Your task to perform on an android device: Clear the cart on ebay.com. Search for "razer deathadder" on ebay.com, select the first entry, and add it to the cart. Image 0: 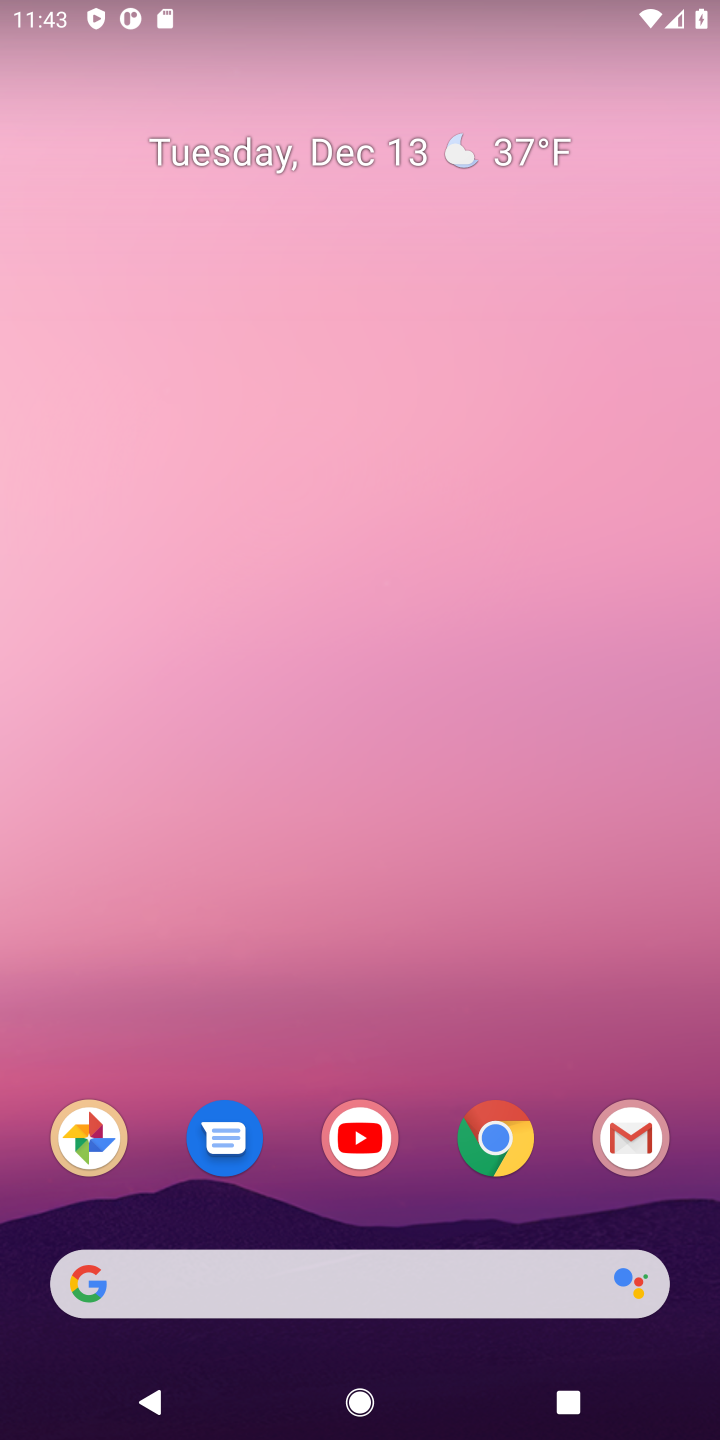
Step 0: click (507, 1137)
Your task to perform on an android device: Clear the cart on ebay.com. Search for "razer deathadder" on ebay.com, select the first entry, and add it to the cart. Image 1: 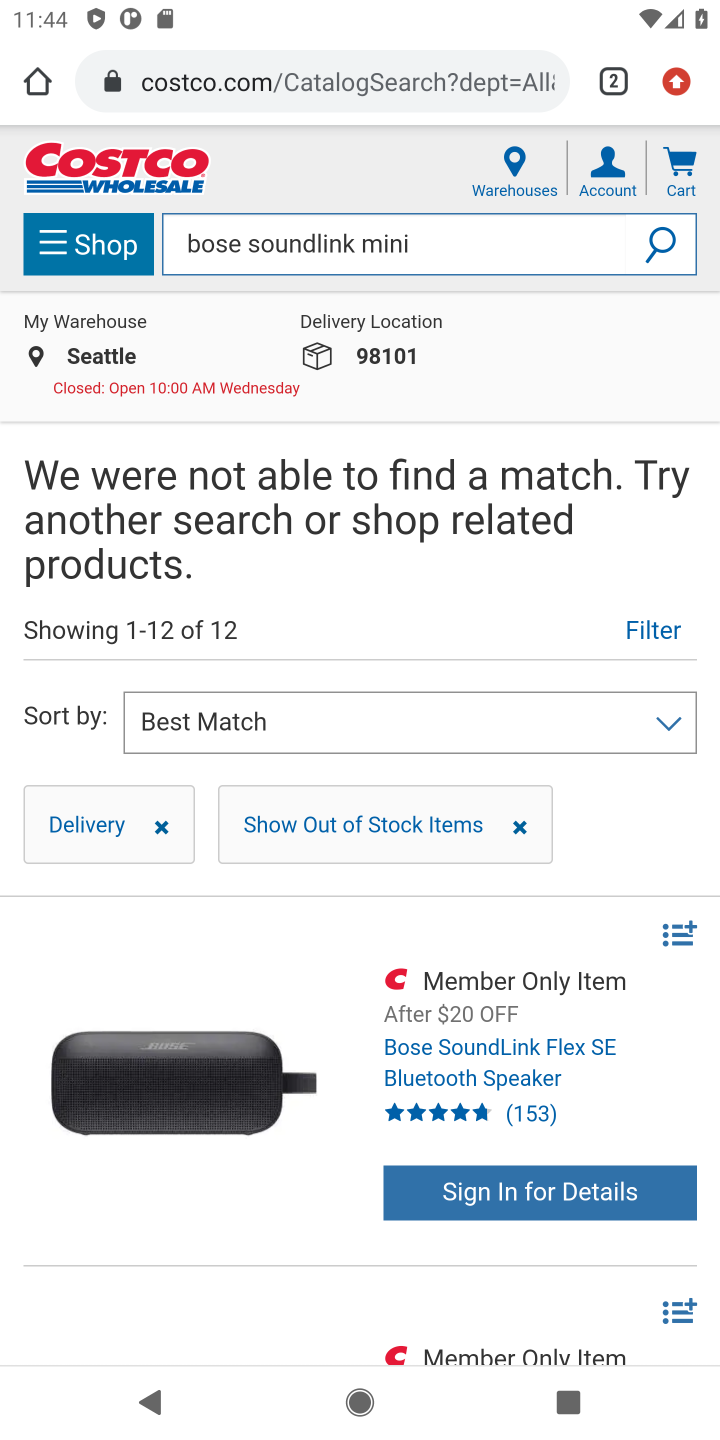
Step 1: click (625, 88)
Your task to perform on an android device: Clear the cart on ebay.com. Search for "razer deathadder" on ebay.com, select the first entry, and add it to the cart. Image 2: 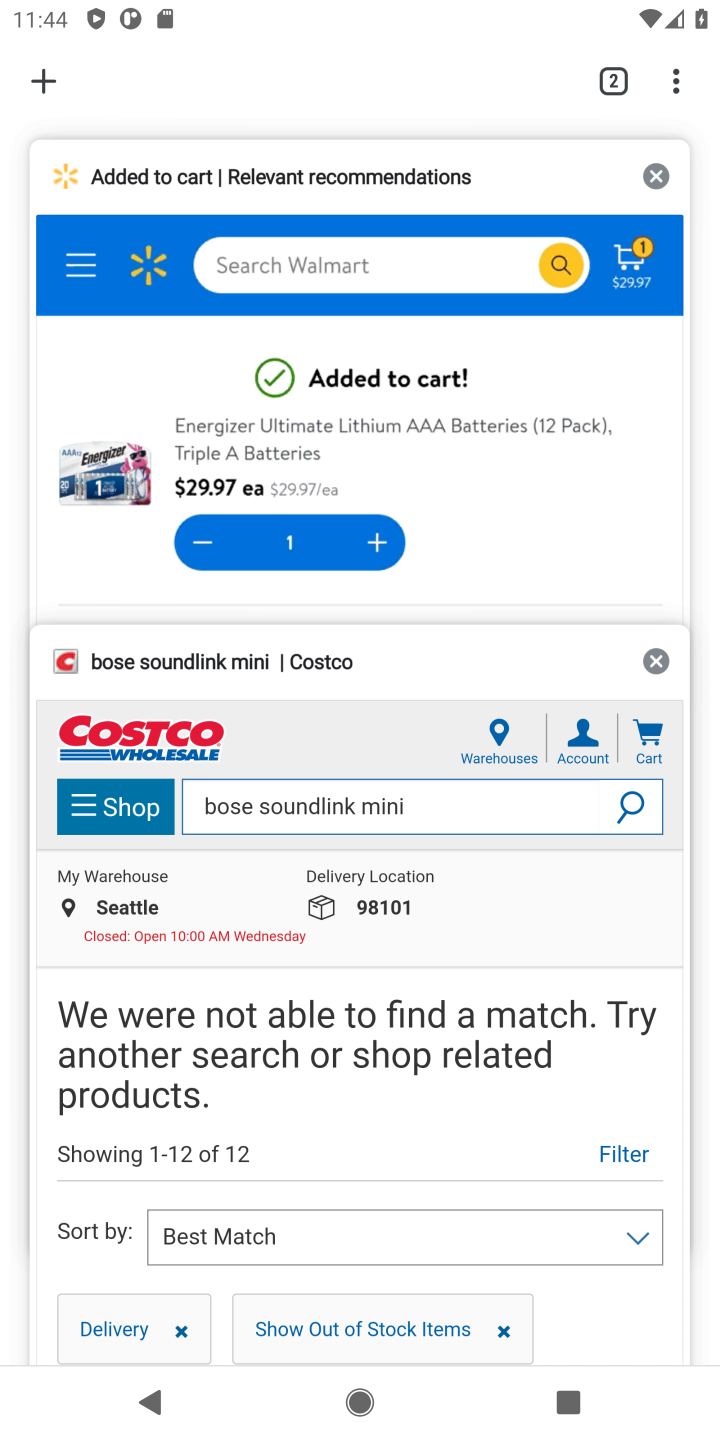
Step 2: click (43, 78)
Your task to perform on an android device: Clear the cart on ebay.com. Search for "razer deathadder" on ebay.com, select the first entry, and add it to the cart. Image 3: 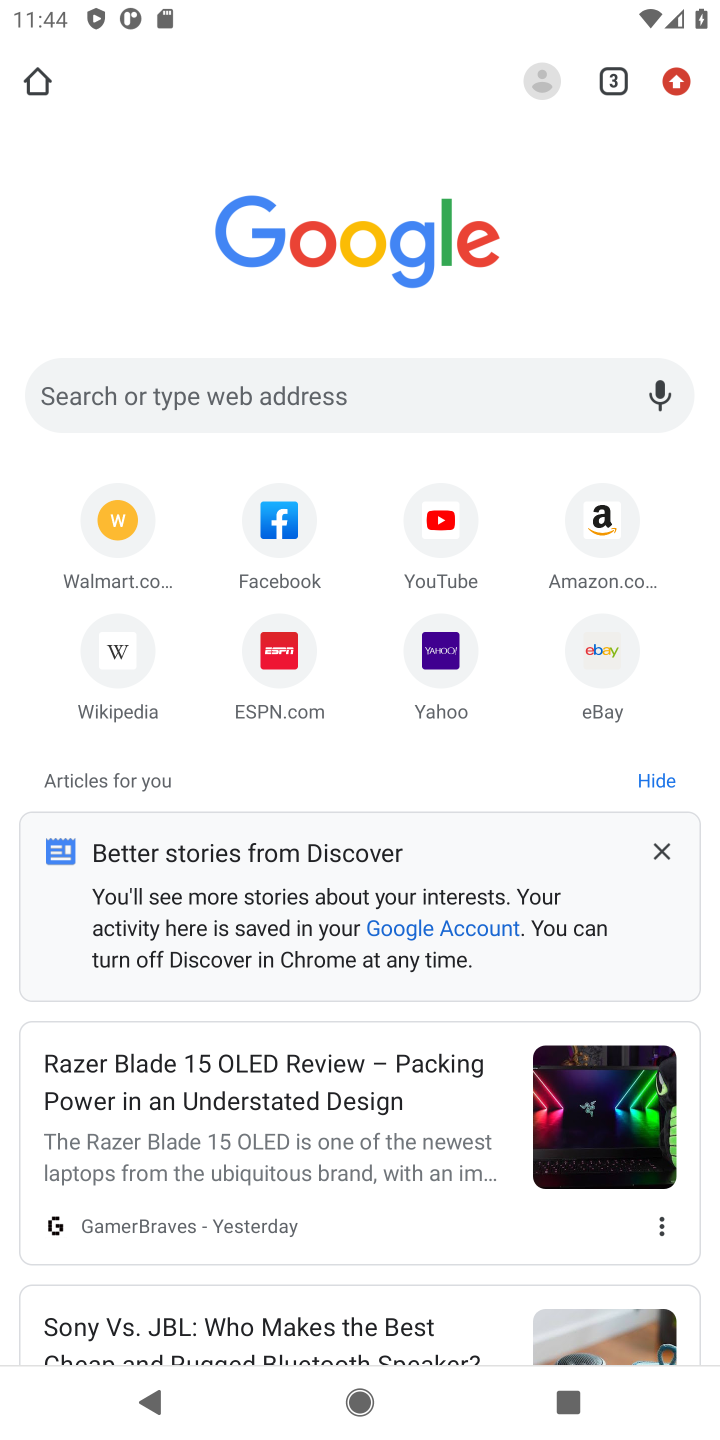
Step 3: click (601, 651)
Your task to perform on an android device: Clear the cart on ebay.com. Search for "razer deathadder" on ebay.com, select the first entry, and add it to the cart. Image 4: 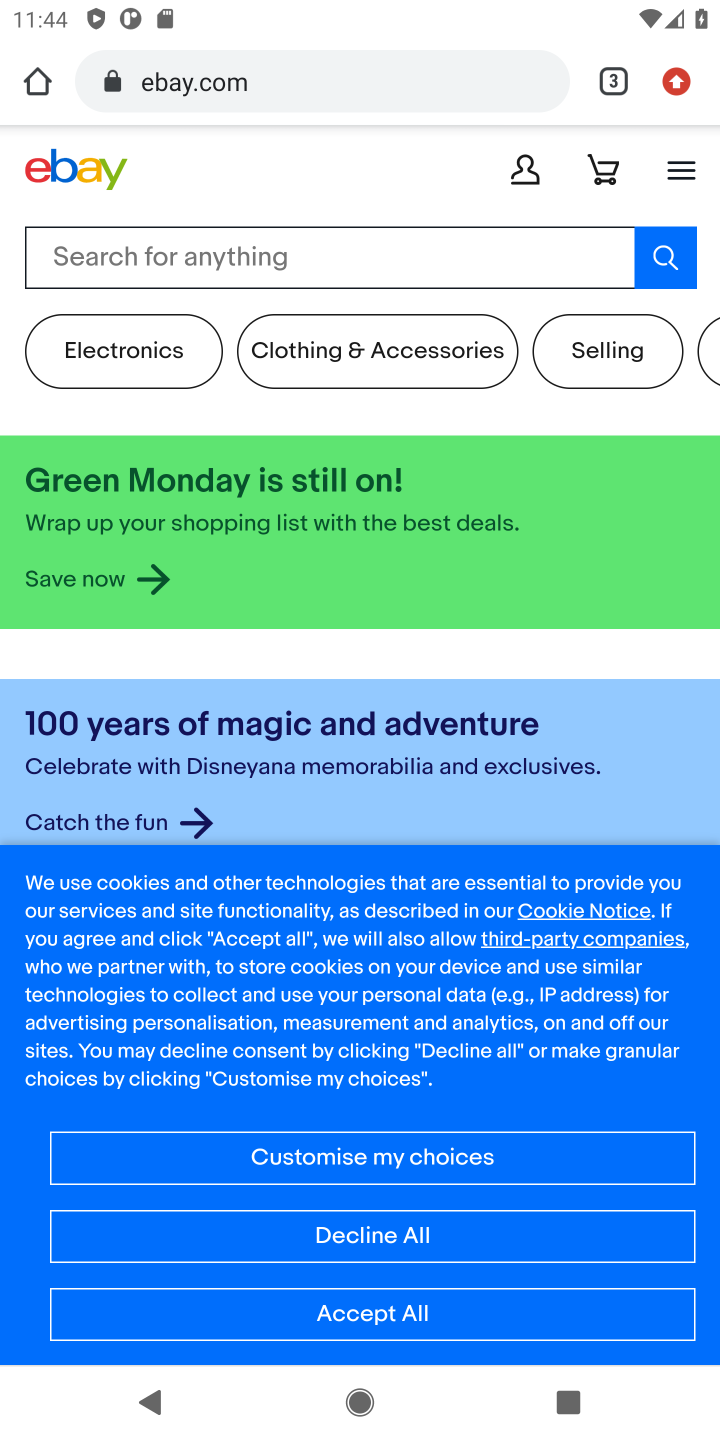
Step 4: click (112, 269)
Your task to perform on an android device: Clear the cart on ebay.com. Search for "razer deathadder" on ebay.com, select the first entry, and add it to the cart. Image 5: 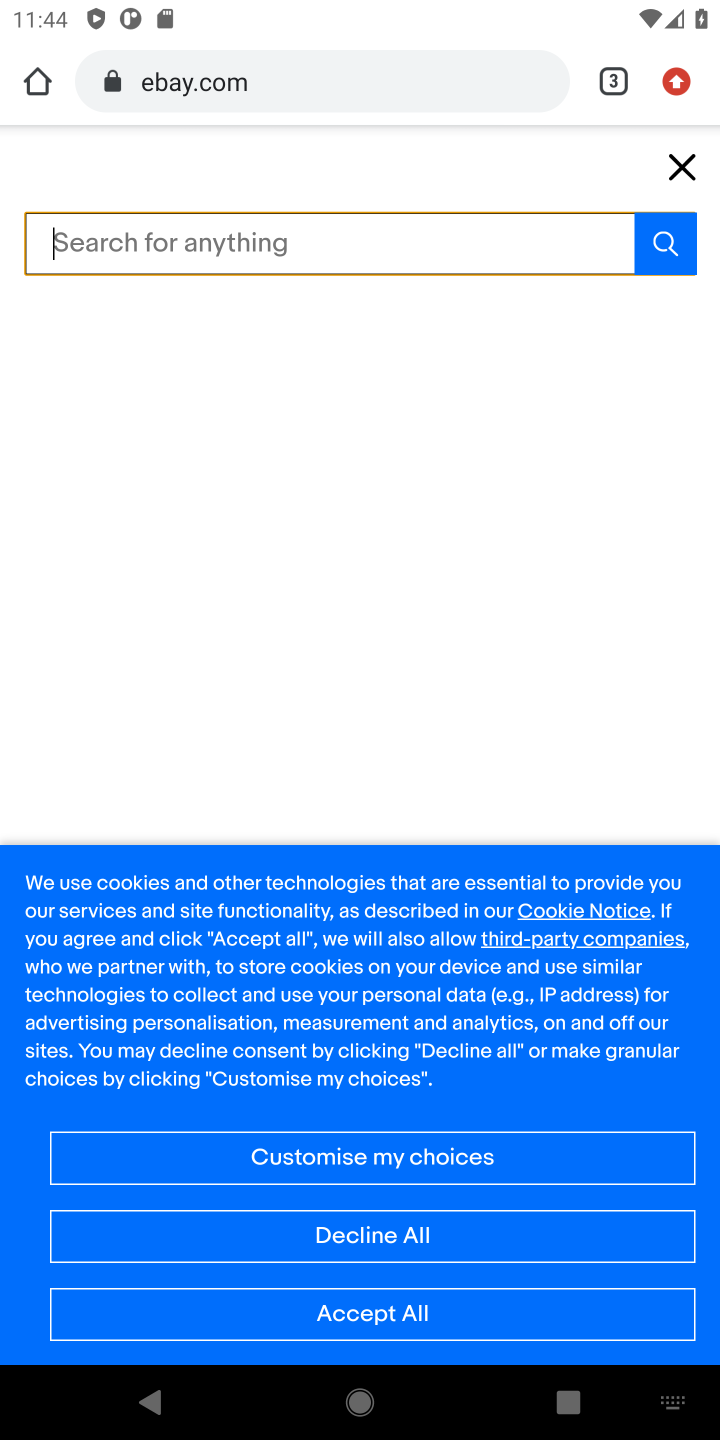
Step 5: type "razer deathadder"
Your task to perform on an android device: Clear the cart on ebay.com. Search for "razer deathadder" on ebay.com, select the first entry, and add it to the cart. Image 6: 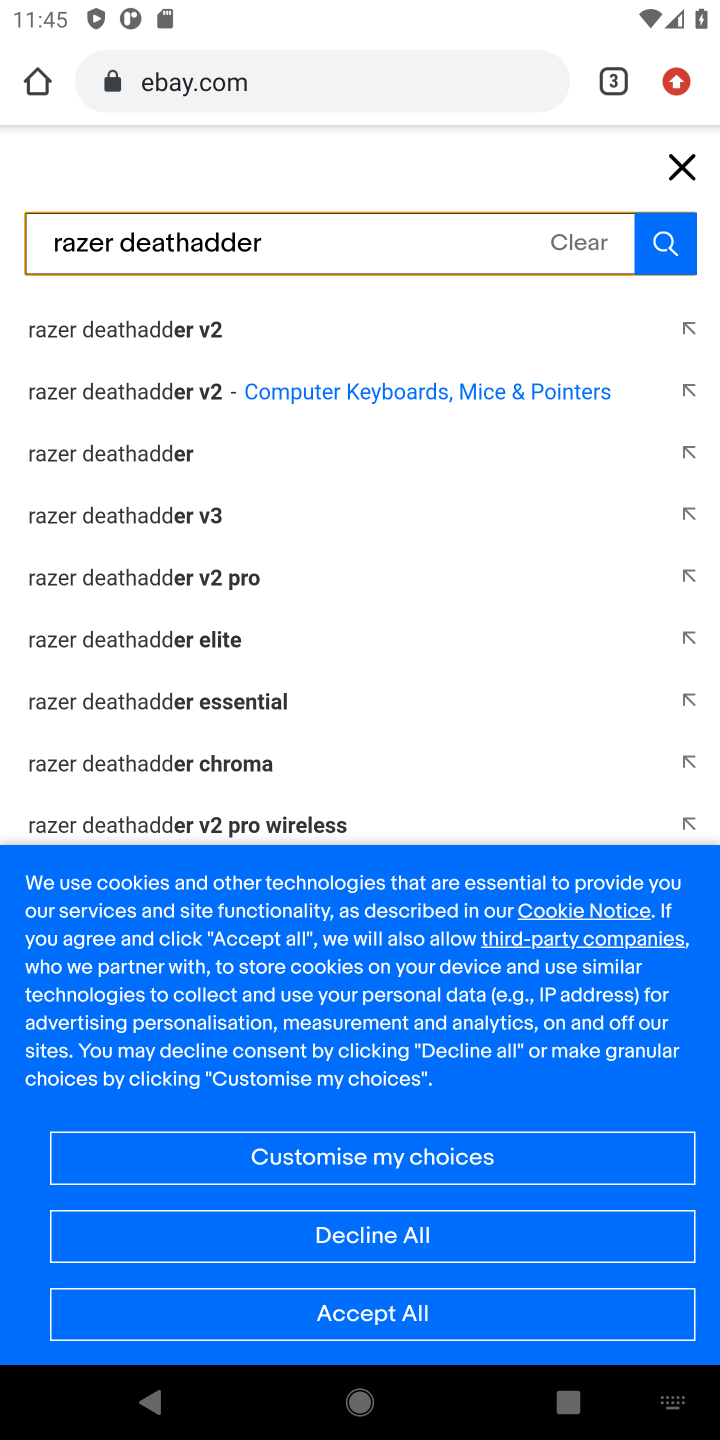
Step 6: click (186, 381)
Your task to perform on an android device: Clear the cart on ebay.com. Search for "razer deathadder" on ebay.com, select the first entry, and add it to the cart. Image 7: 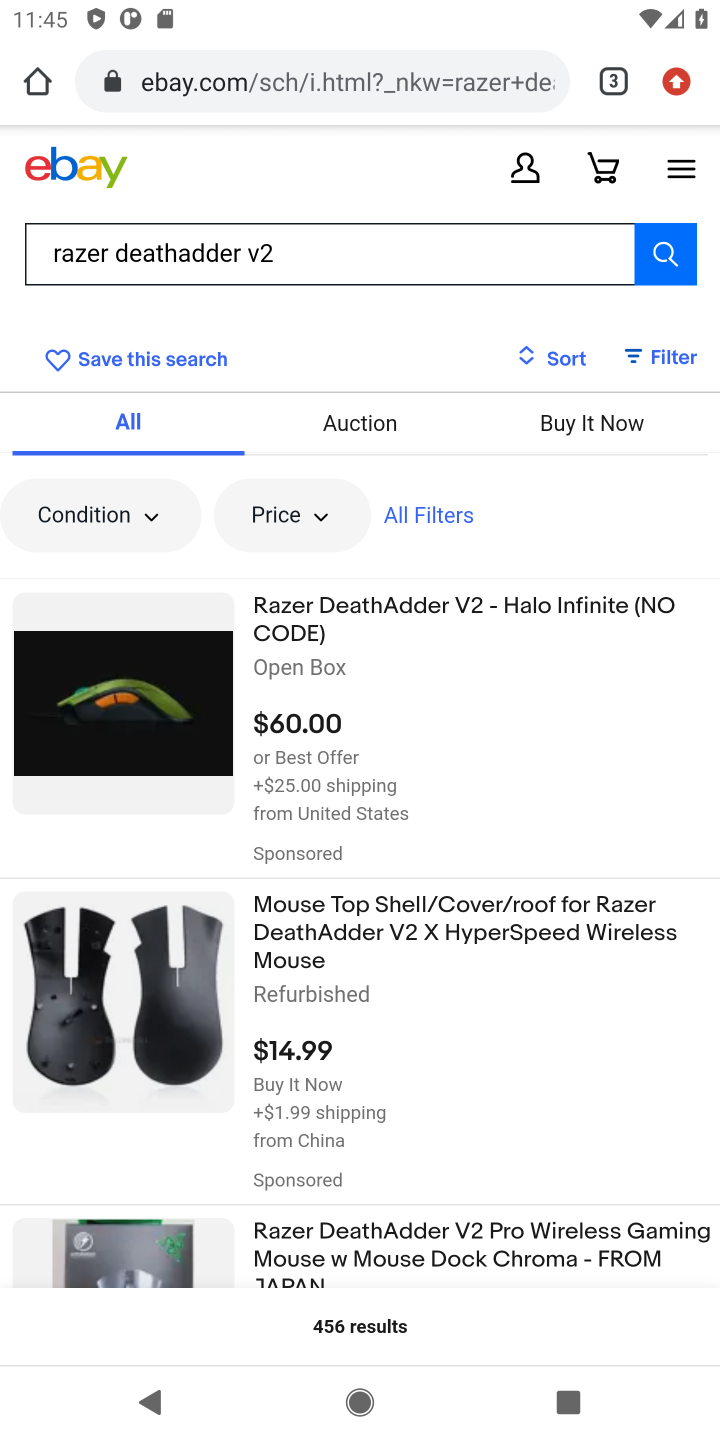
Step 7: click (460, 608)
Your task to perform on an android device: Clear the cart on ebay.com. Search for "razer deathadder" on ebay.com, select the first entry, and add it to the cart. Image 8: 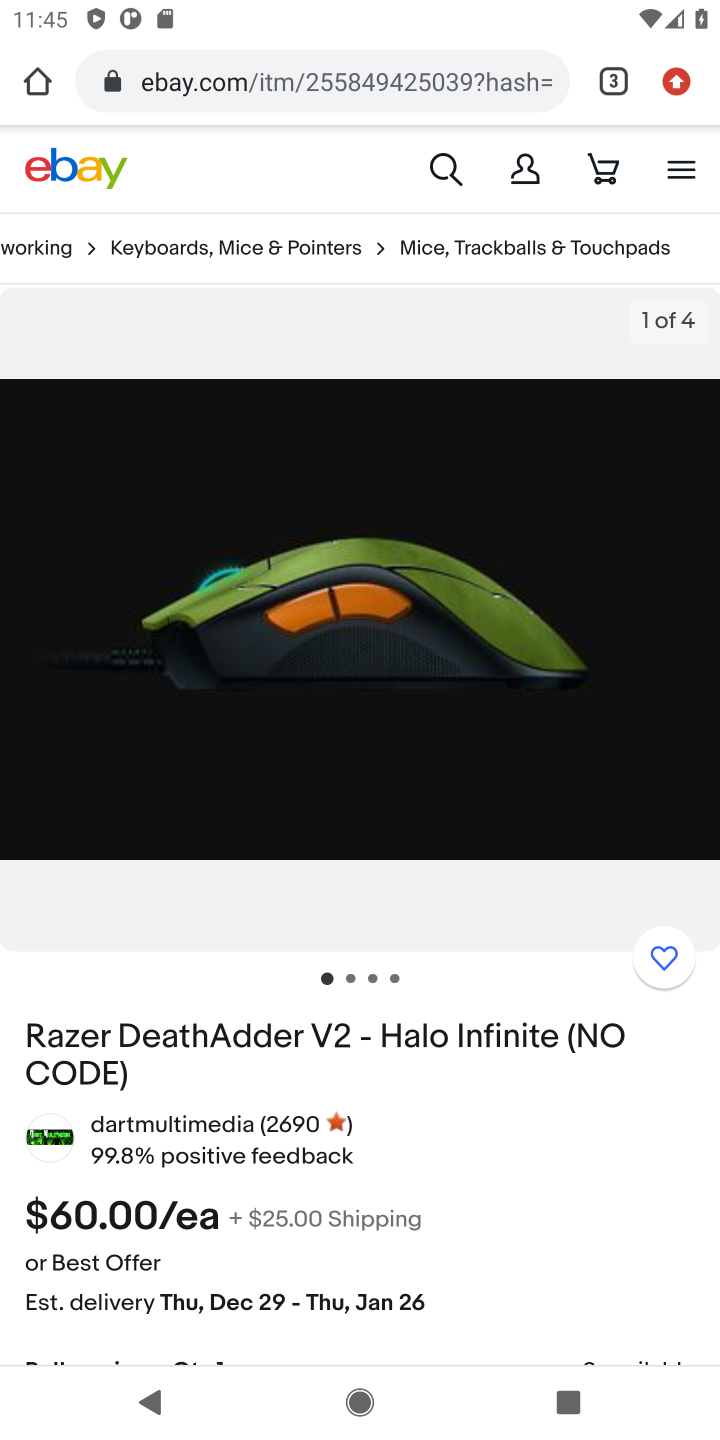
Step 8: drag from (345, 1146) to (669, 430)
Your task to perform on an android device: Clear the cart on ebay.com. Search for "razer deathadder" on ebay.com, select the first entry, and add it to the cart. Image 9: 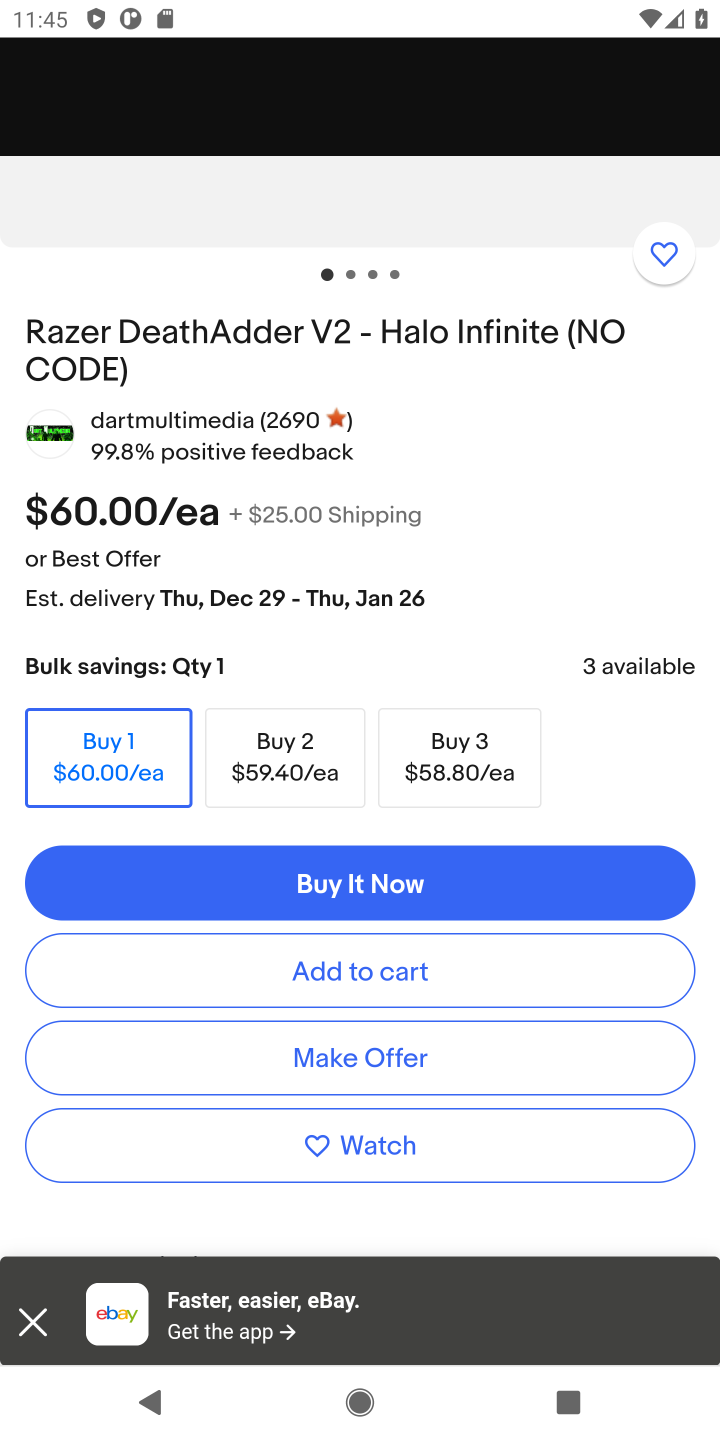
Step 9: click (378, 977)
Your task to perform on an android device: Clear the cart on ebay.com. Search for "razer deathadder" on ebay.com, select the first entry, and add it to the cart. Image 10: 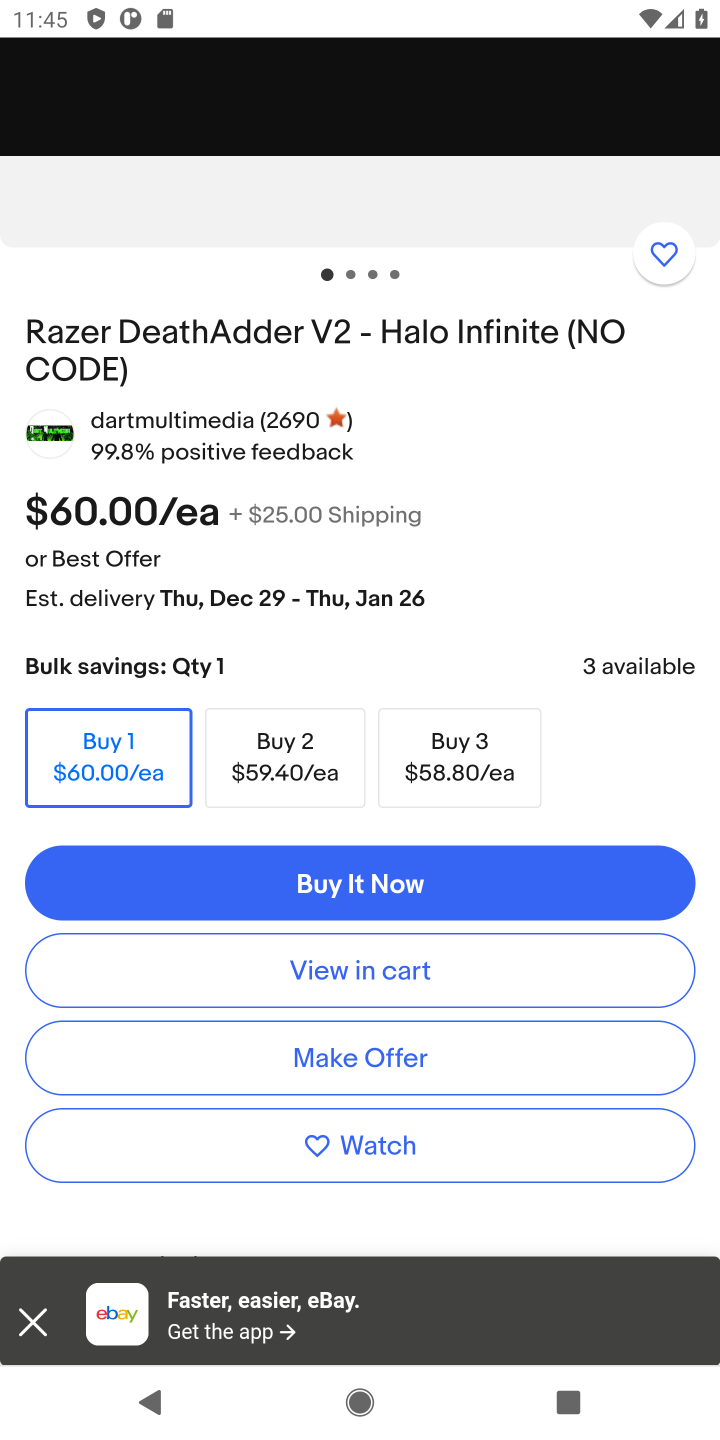
Step 10: task complete